Your task to perform on an android device: toggle priority inbox in the gmail app Image 0: 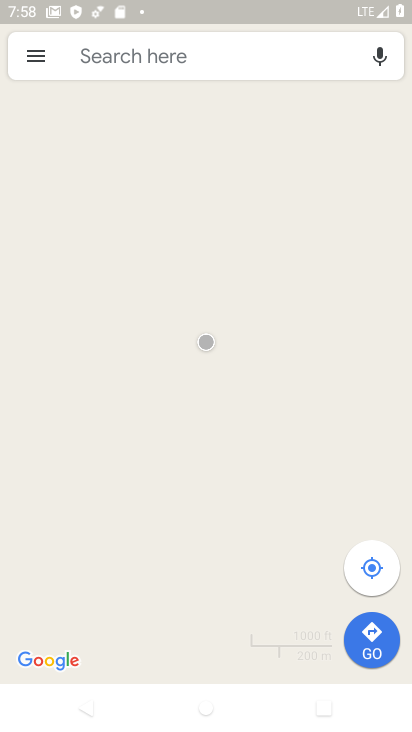
Step 0: press back button
Your task to perform on an android device: toggle priority inbox in the gmail app Image 1: 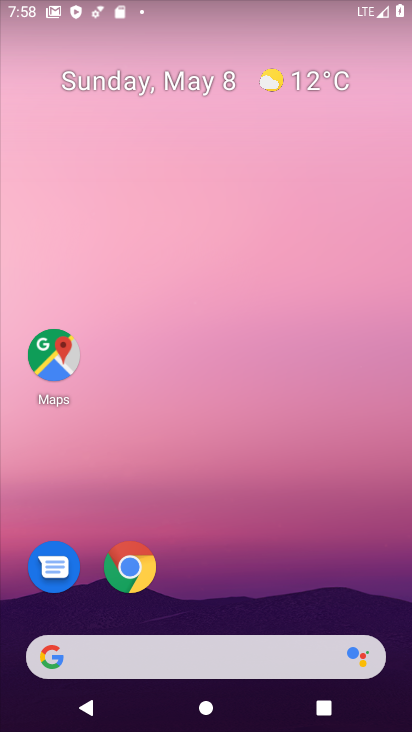
Step 1: drag from (204, 663) to (223, 100)
Your task to perform on an android device: toggle priority inbox in the gmail app Image 2: 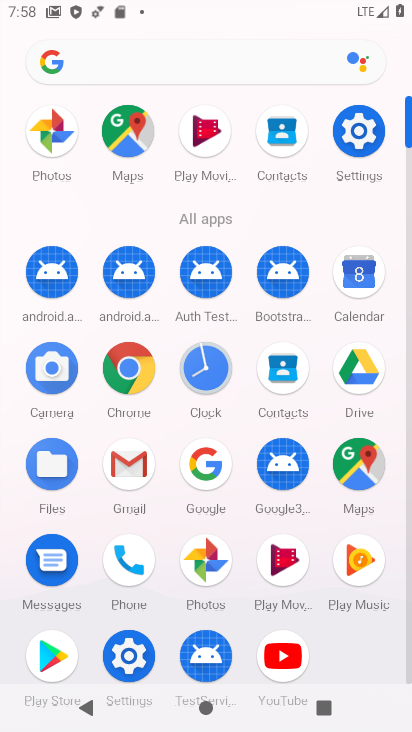
Step 2: click (124, 474)
Your task to perform on an android device: toggle priority inbox in the gmail app Image 3: 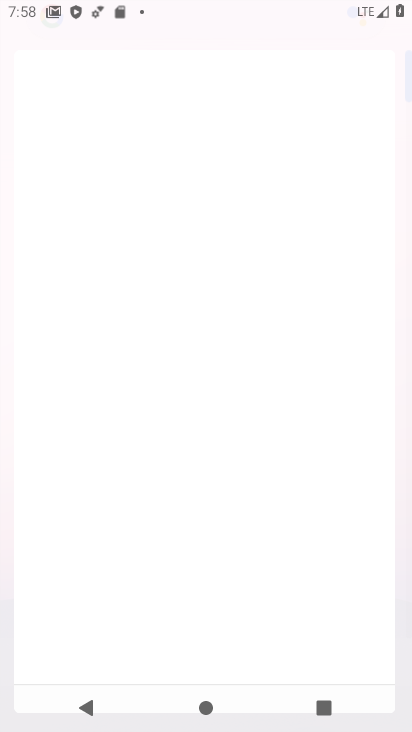
Step 3: click (124, 474)
Your task to perform on an android device: toggle priority inbox in the gmail app Image 4: 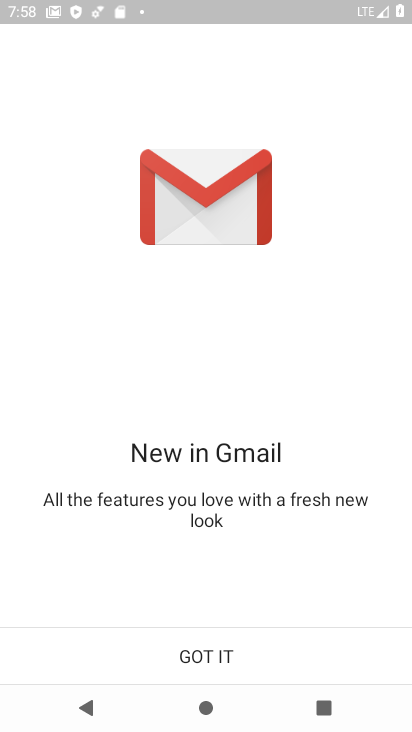
Step 4: click (192, 645)
Your task to perform on an android device: toggle priority inbox in the gmail app Image 5: 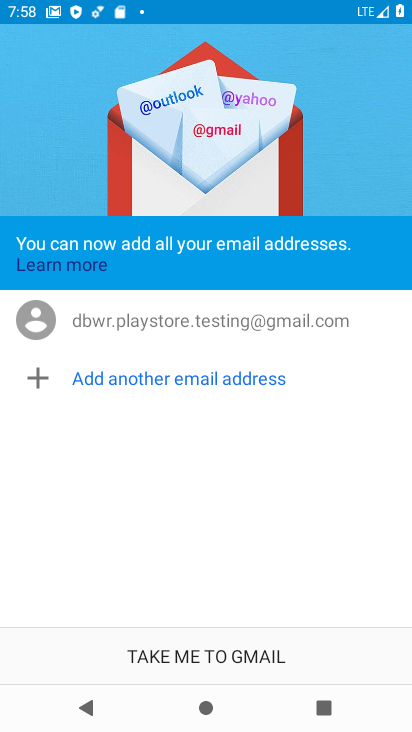
Step 5: click (194, 646)
Your task to perform on an android device: toggle priority inbox in the gmail app Image 6: 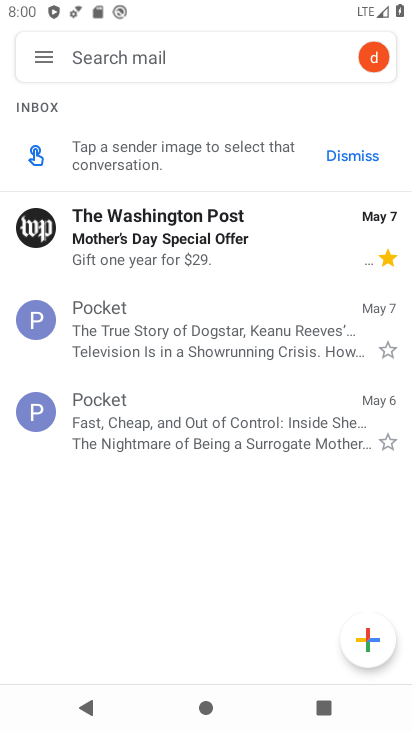
Step 6: click (41, 52)
Your task to perform on an android device: toggle priority inbox in the gmail app Image 7: 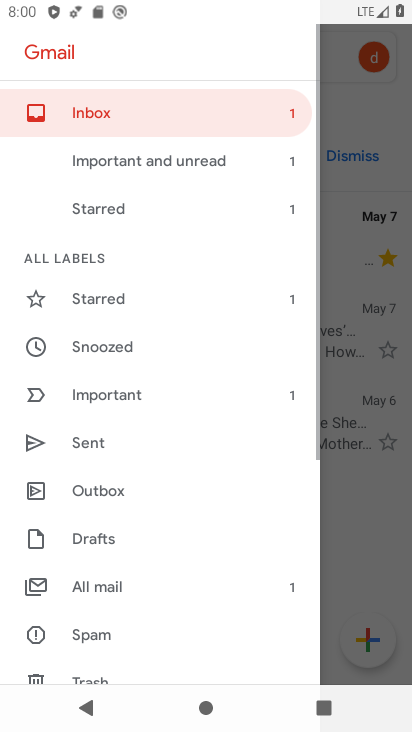
Step 7: drag from (119, 593) to (85, 5)
Your task to perform on an android device: toggle priority inbox in the gmail app Image 8: 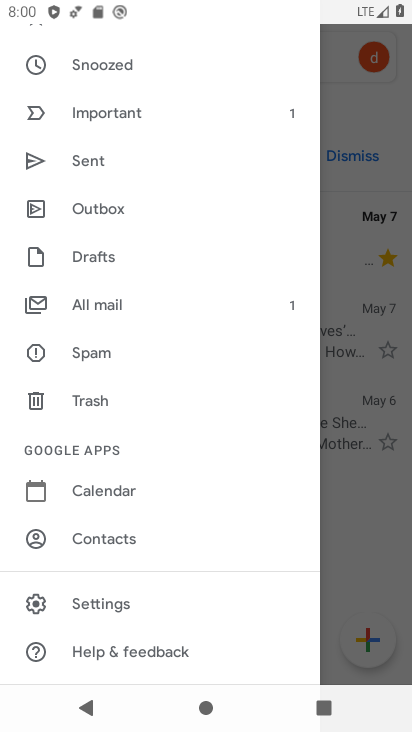
Step 8: click (62, 604)
Your task to perform on an android device: toggle priority inbox in the gmail app Image 9: 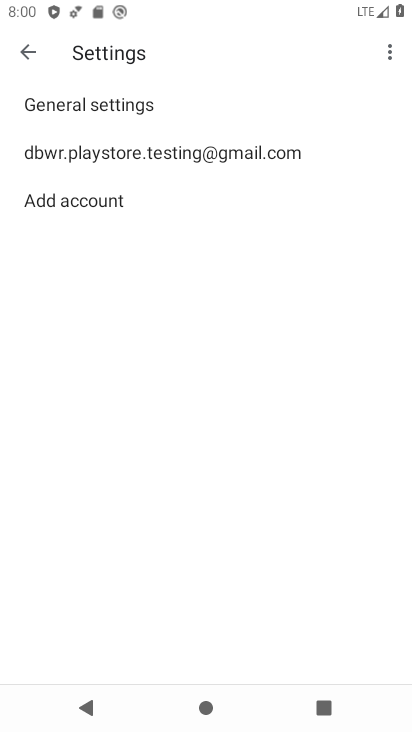
Step 9: click (236, 154)
Your task to perform on an android device: toggle priority inbox in the gmail app Image 10: 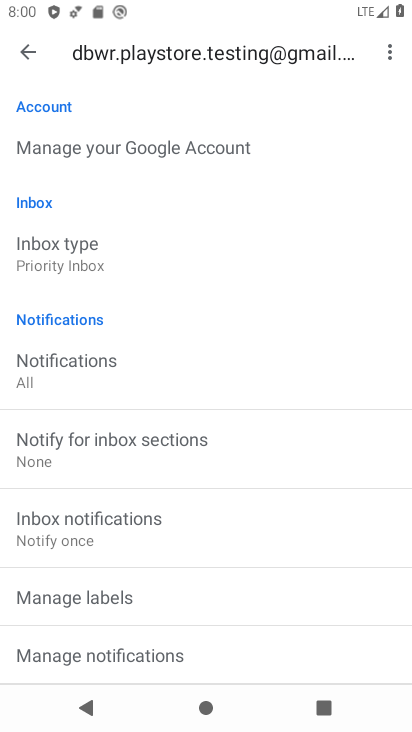
Step 10: click (90, 259)
Your task to perform on an android device: toggle priority inbox in the gmail app Image 11: 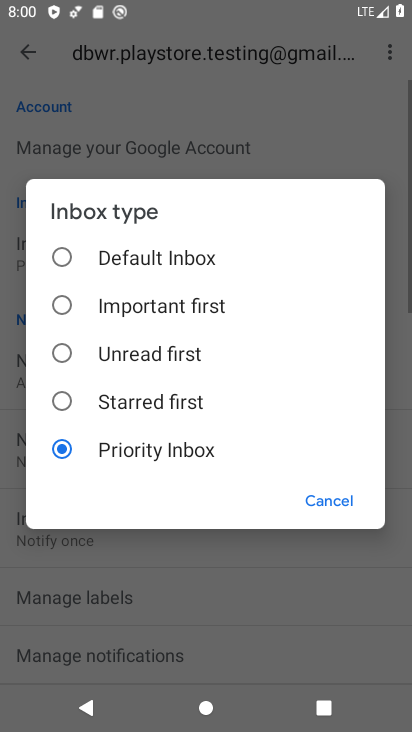
Step 11: click (133, 444)
Your task to perform on an android device: toggle priority inbox in the gmail app Image 12: 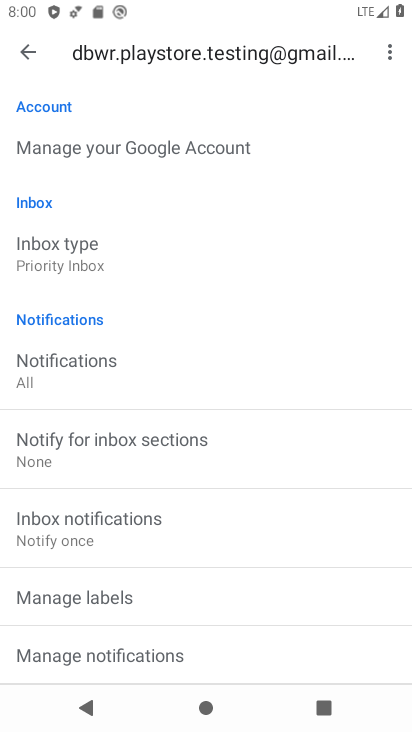
Step 12: task complete